Your task to perform on an android device: Go to Wikipedia Image 0: 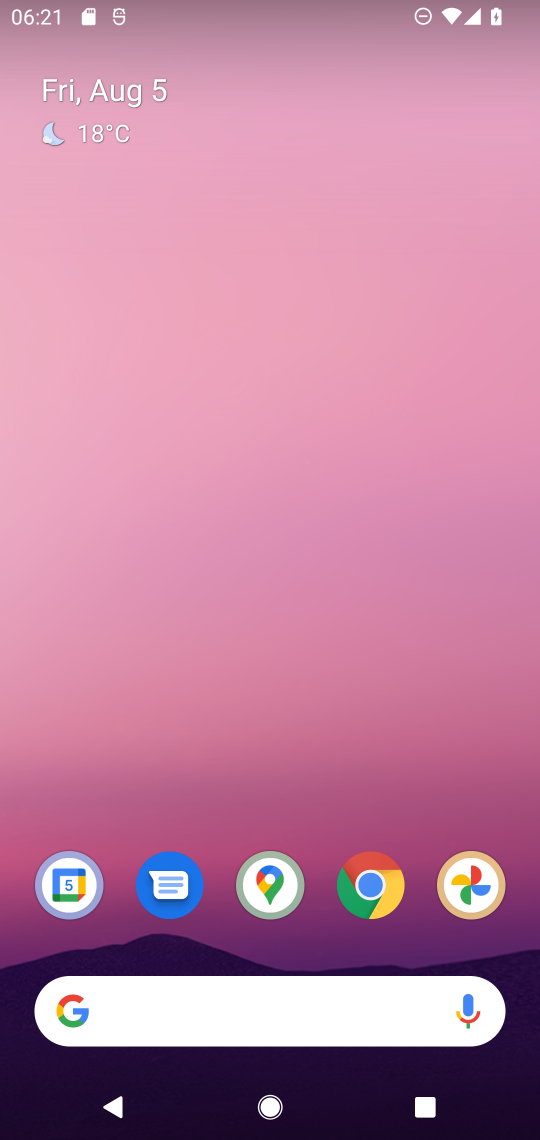
Step 0: click (370, 895)
Your task to perform on an android device: Go to Wikipedia Image 1: 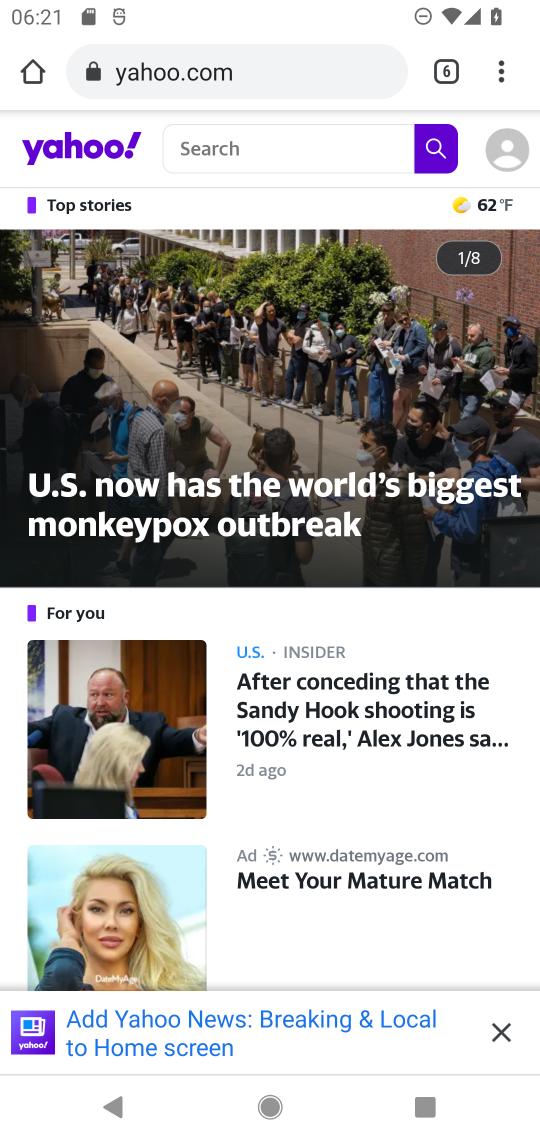
Step 1: click (501, 79)
Your task to perform on an android device: Go to Wikipedia Image 2: 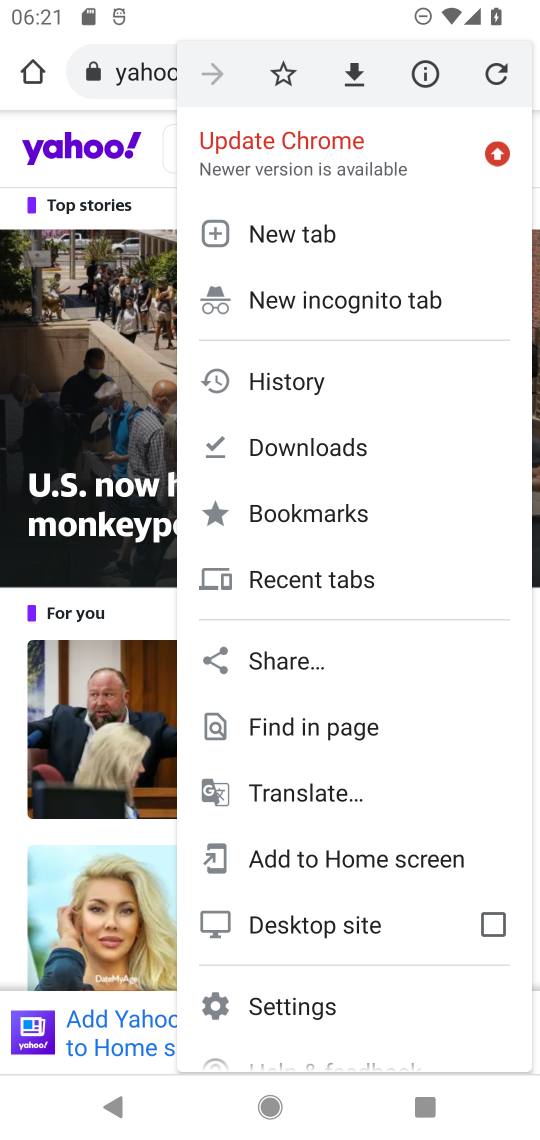
Step 2: click (288, 231)
Your task to perform on an android device: Go to Wikipedia Image 3: 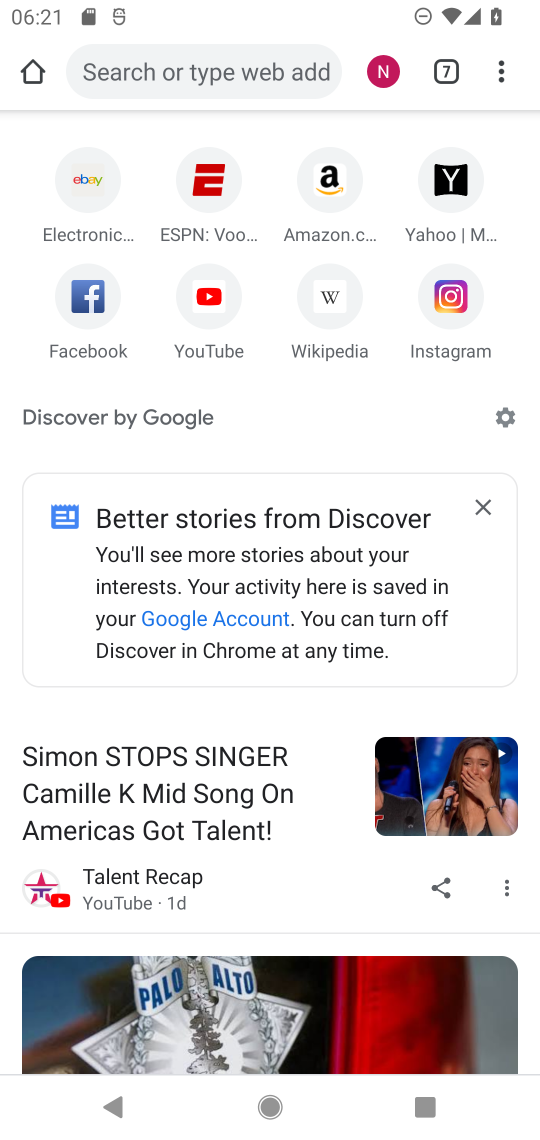
Step 3: click (329, 292)
Your task to perform on an android device: Go to Wikipedia Image 4: 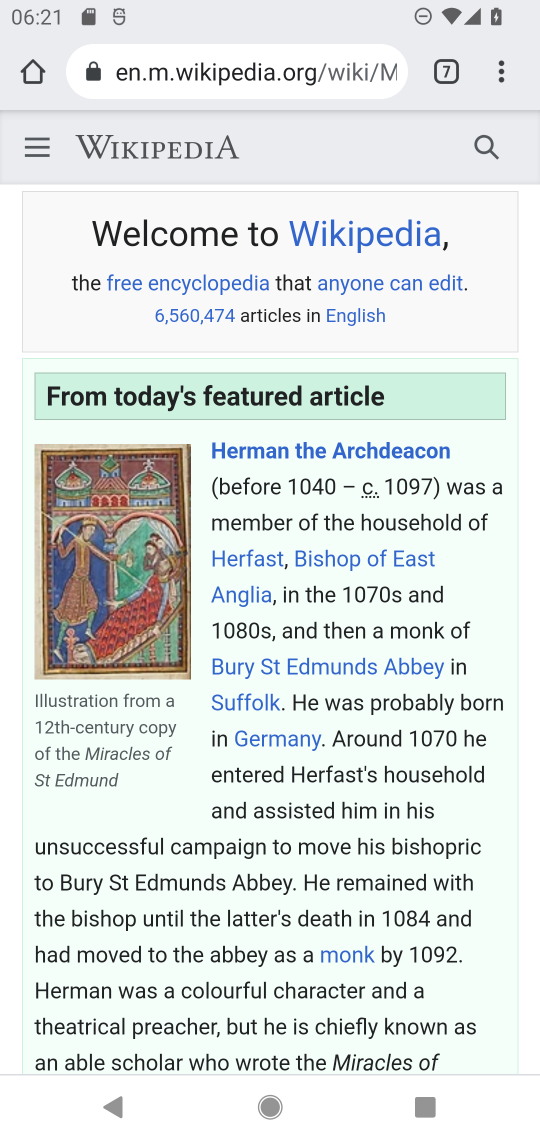
Step 4: task complete